Your task to perform on an android device: Search for the best books on Goodreads Image 0: 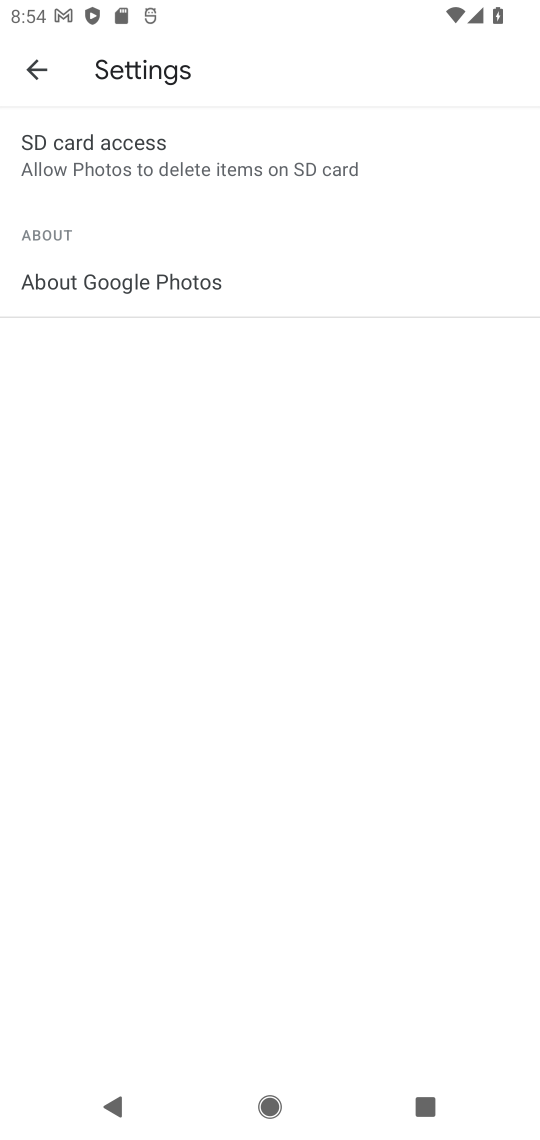
Step 0: press home button
Your task to perform on an android device: Search for the best books on Goodreads Image 1: 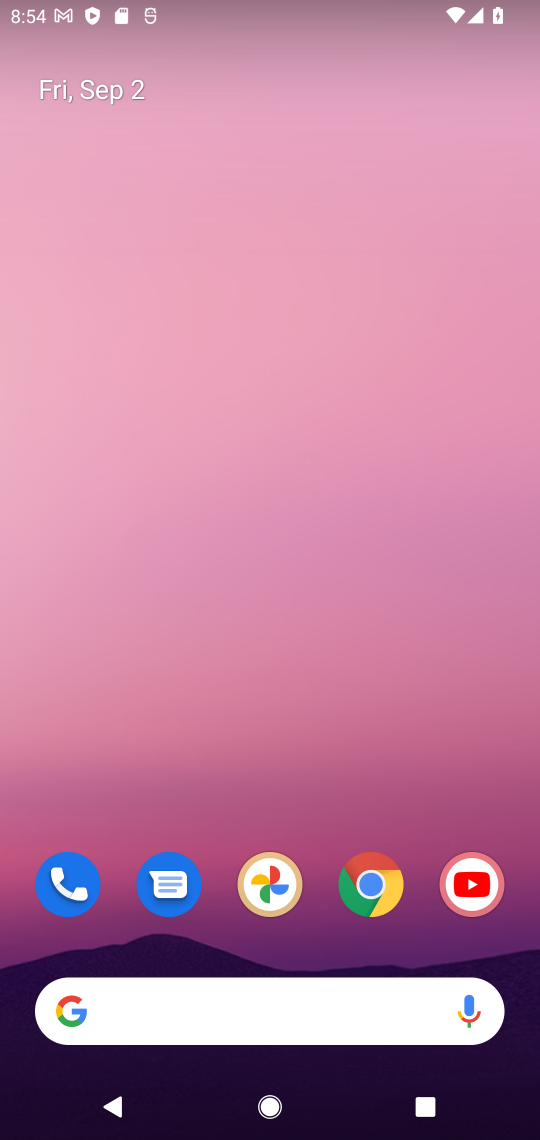
Step 1: click (379, 894)
Your task to perform on an android device: Search for the best books on Goodreads Image 2: 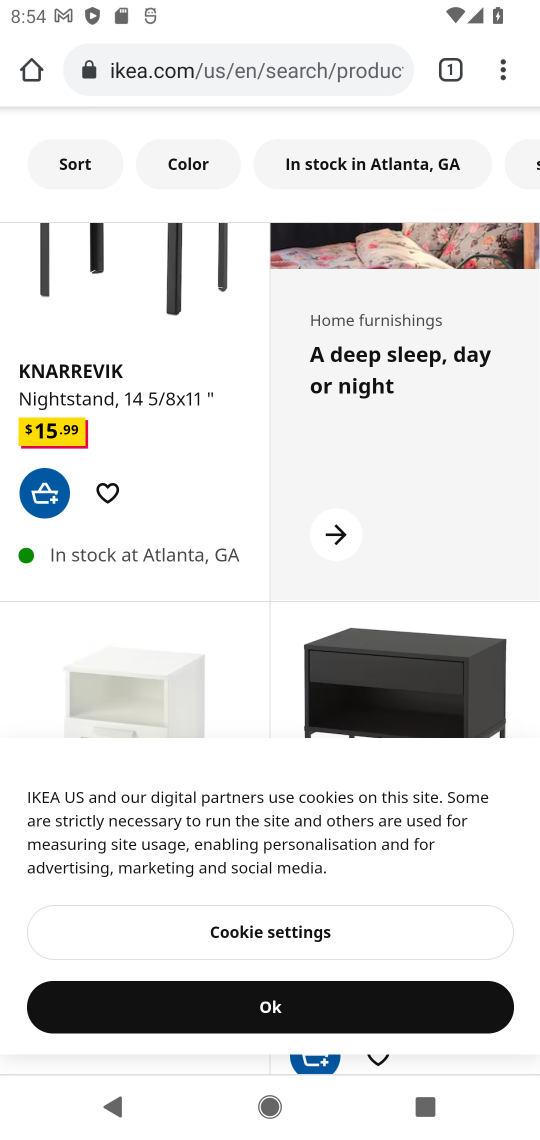
Step 2: click (214, 80)
Your task to perform on an android device: Search for the best books on Goodreads Image 3: 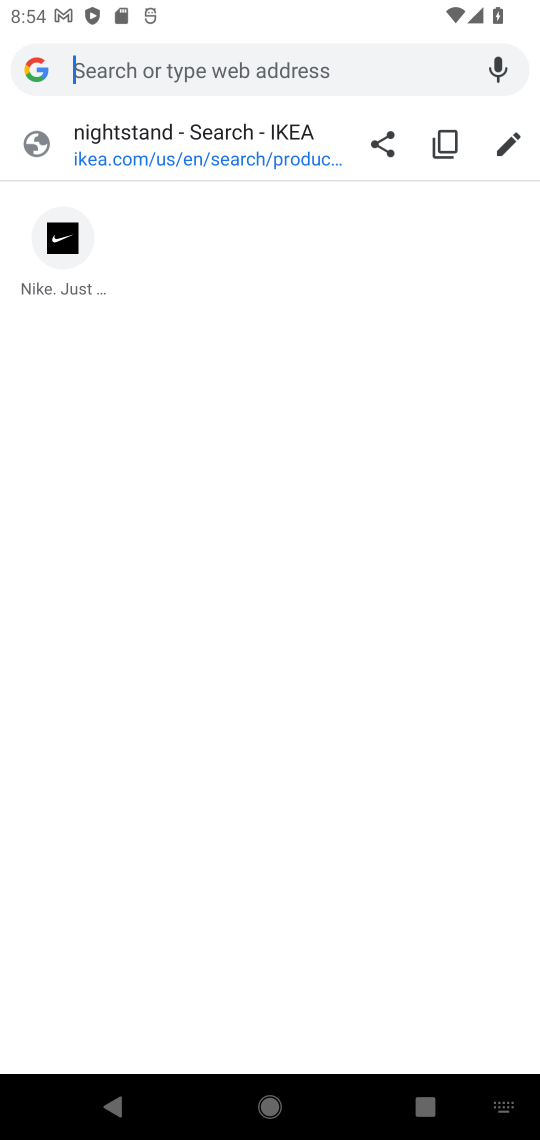
Step 3: type "goodreads"
Your task to perform on an android device: Search for the best books on Goodreads Image 4: 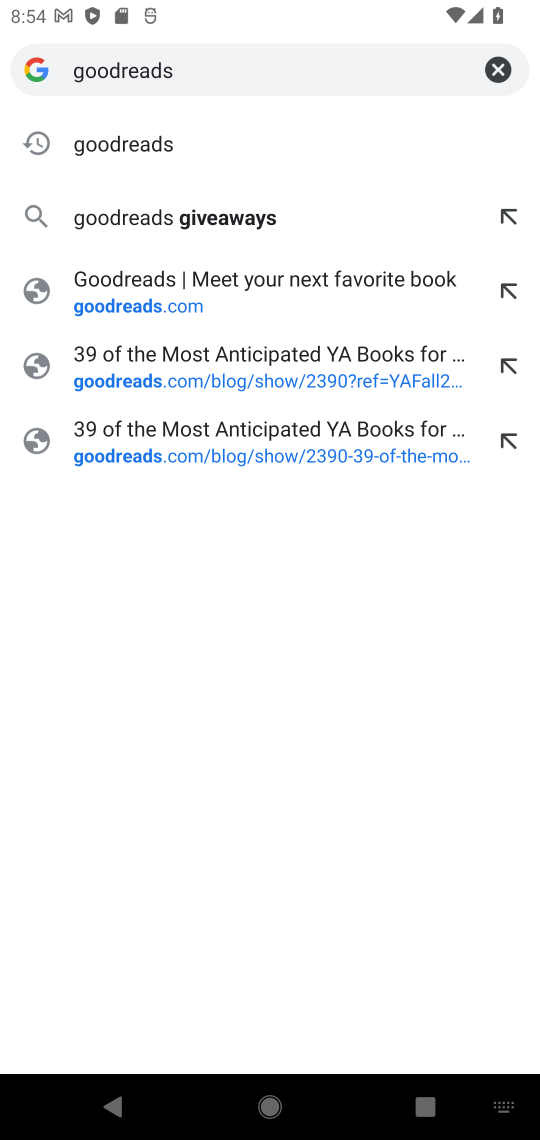
Step 4: click (120, 155)
Your task to perform on an android device: Search for the best books on Goodreads Image 5: 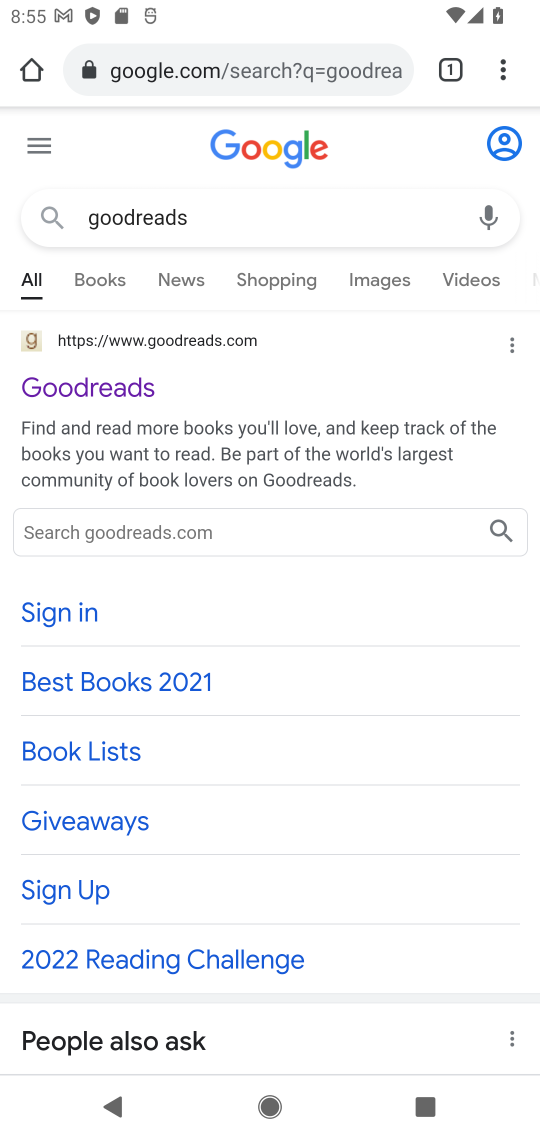
Step 5: click (92, 400)
Your task to perform on an android device: Search for the best books on Goodreads Image 6: 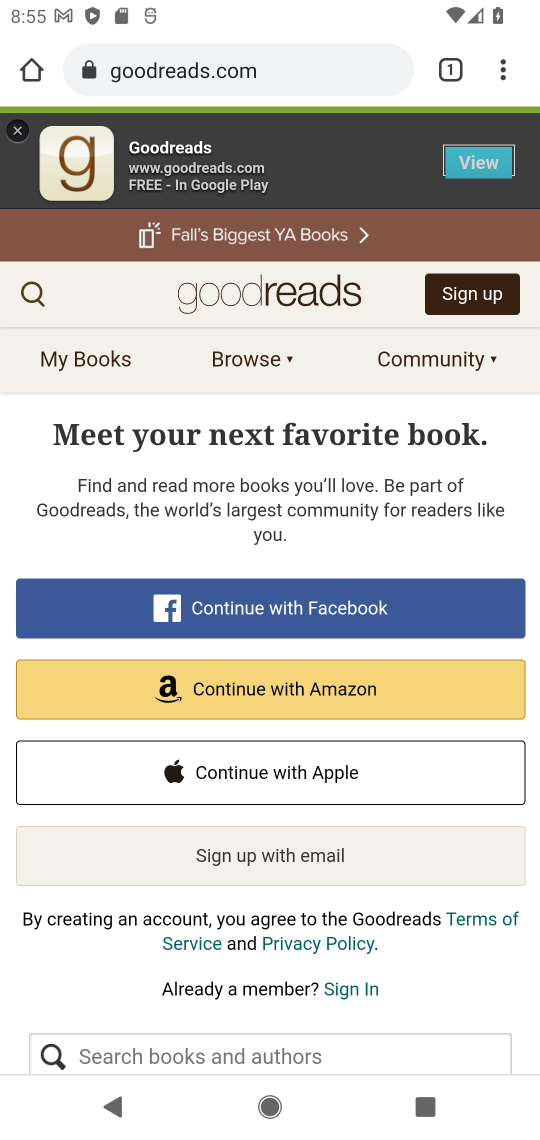
Step 6: click (48, 292)
Your task to perform on an android device: Search for the best books on Goodreads Image 7: 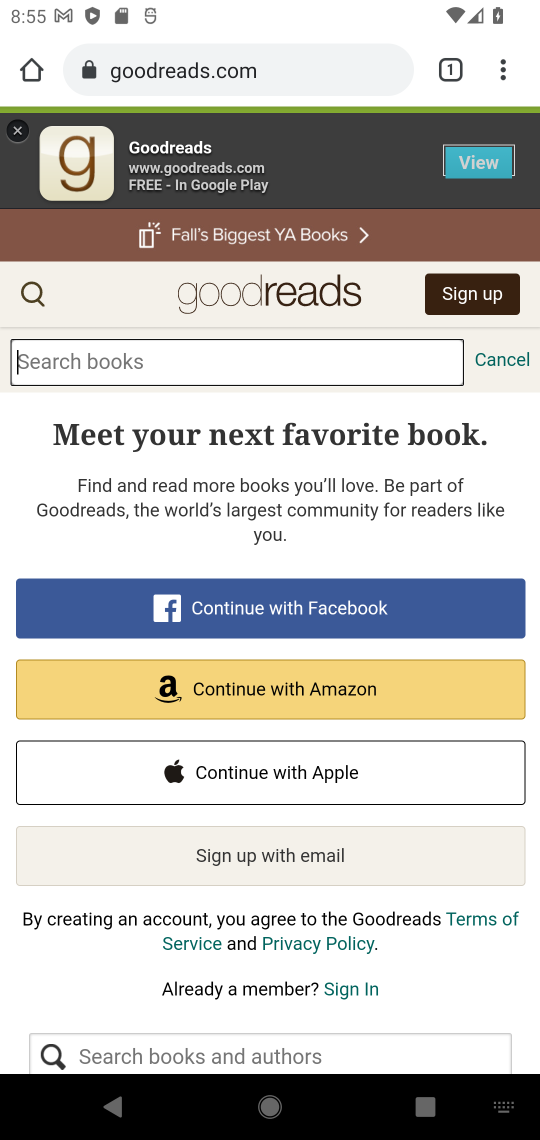
Step 7: click (62, 359)
Your task to perform on an android device: Search for the best books on Goodreads Image 8: 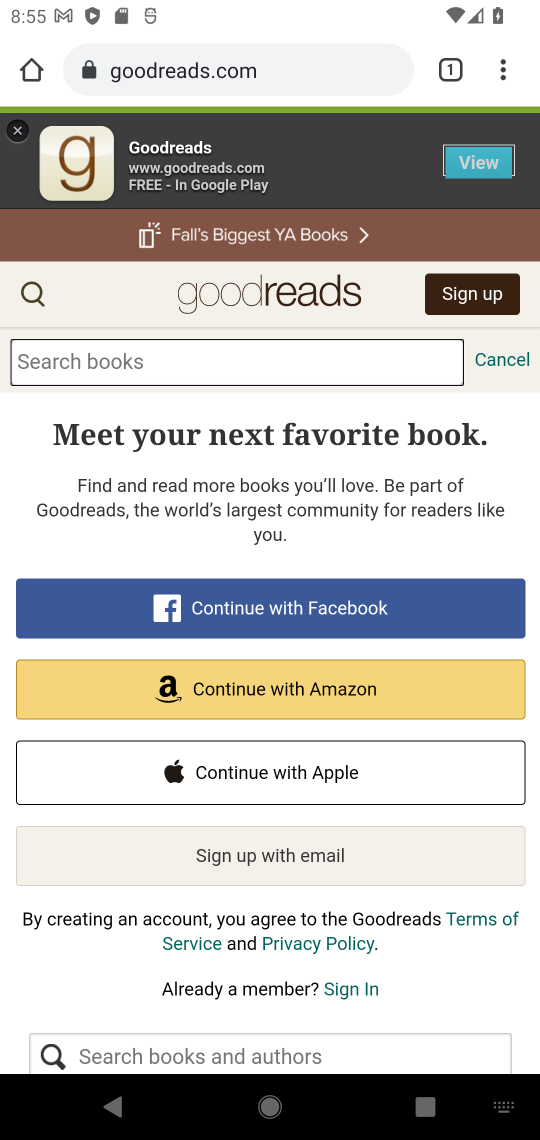
Step 8: type "best books"
Your task to perform on an android device: Search for the best books on Goodreads Image 9: 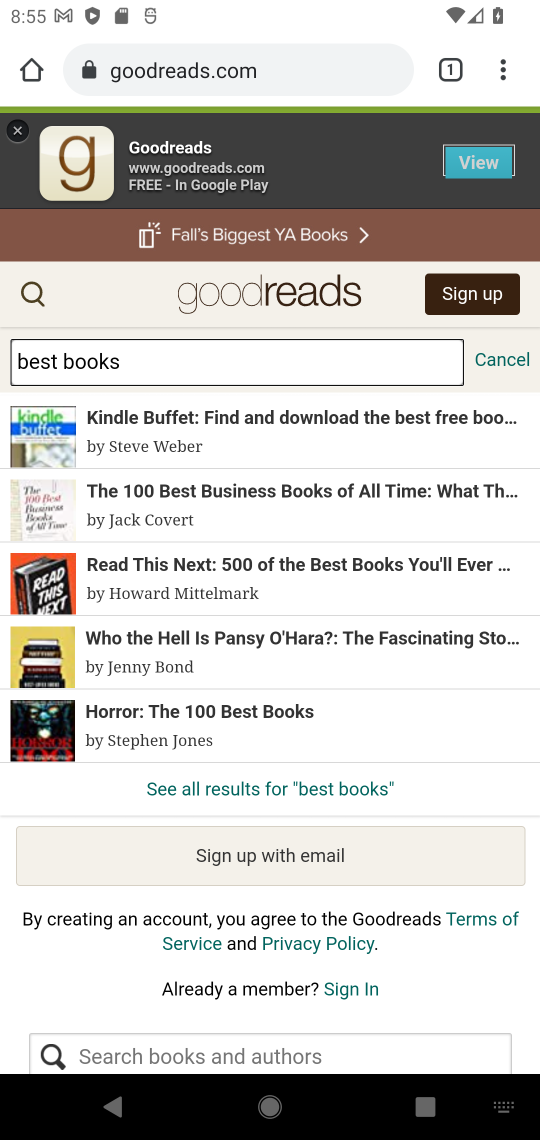
Step 9: drag from (387, 651) to (387, 398)
Your task to perform on an android device: Search for the best books on Goodreads Image 10: 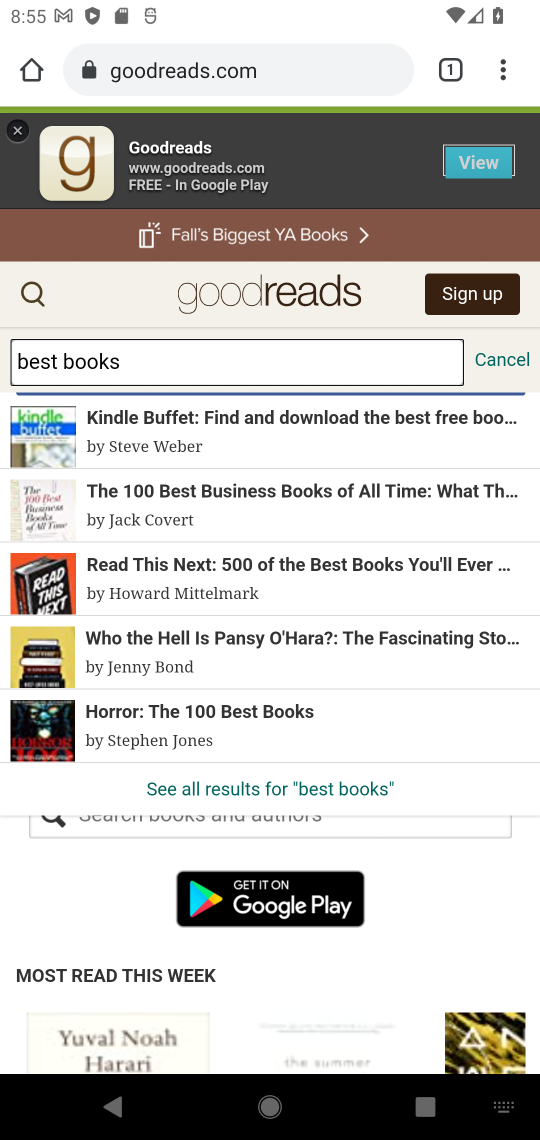
Step 10: click (330, 789)
Your task to perform on an android device: Search for the best books on Goodreads Image 11: 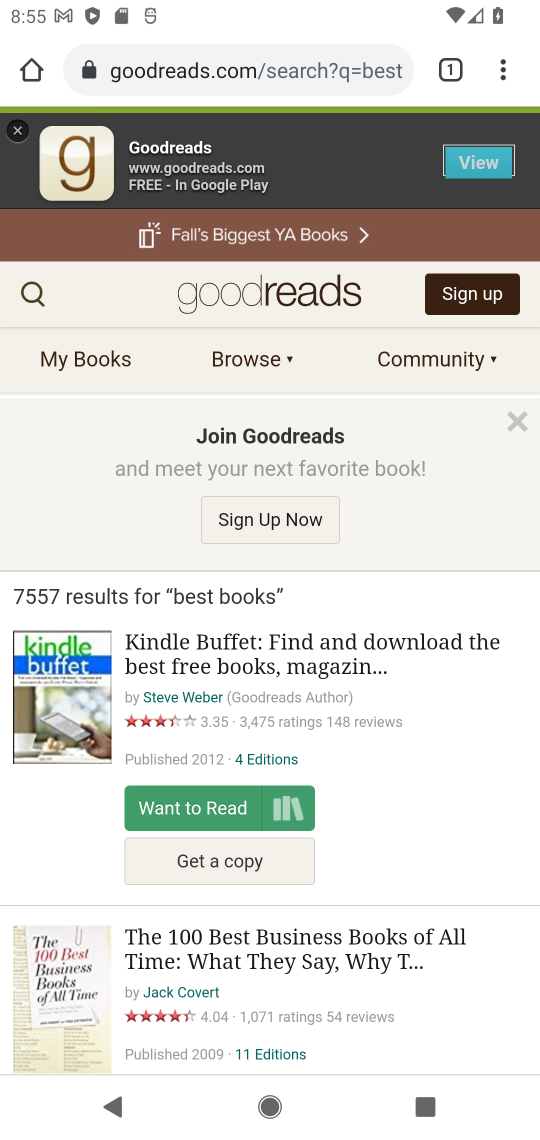
Step 11: task complete